Your task to perform on an android device: check storage Image 0: 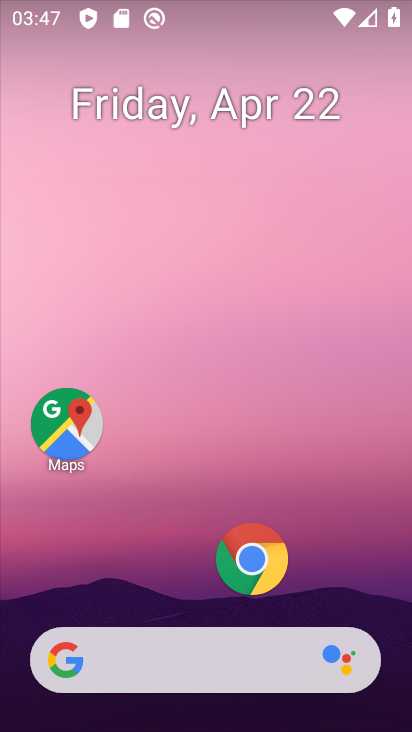
Step 0: drag from (162, 488) to (157, 117)
Your task to perform on an android device: check storage Image 1: 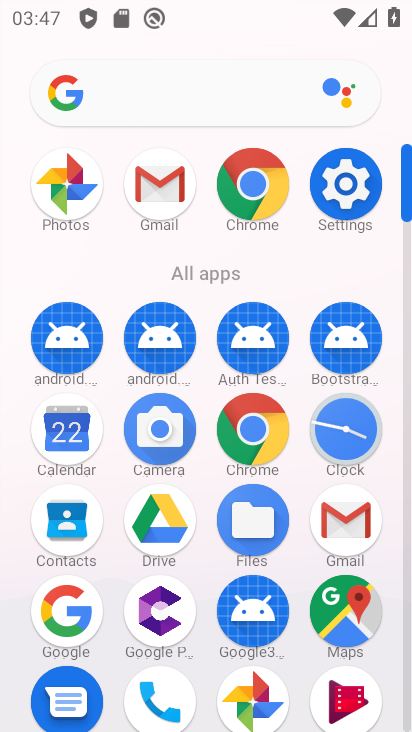
Step 1: click (341, 186)
Your task to perform on an android device: check storage Image 2: 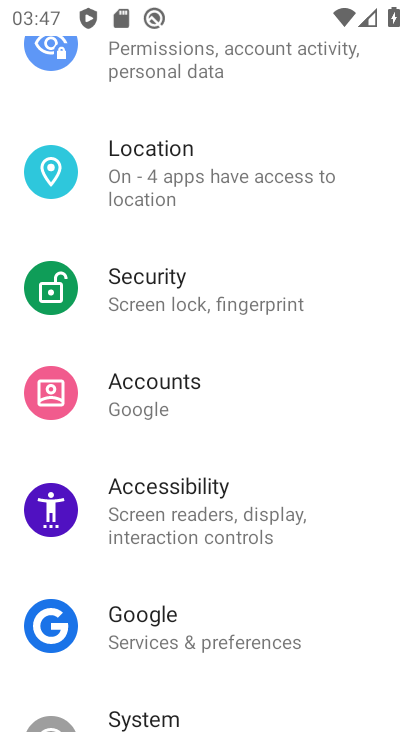
Step 2: drag from (219, 227) to (201, 551)
Your task to perform on an android device: check storage Image 3: 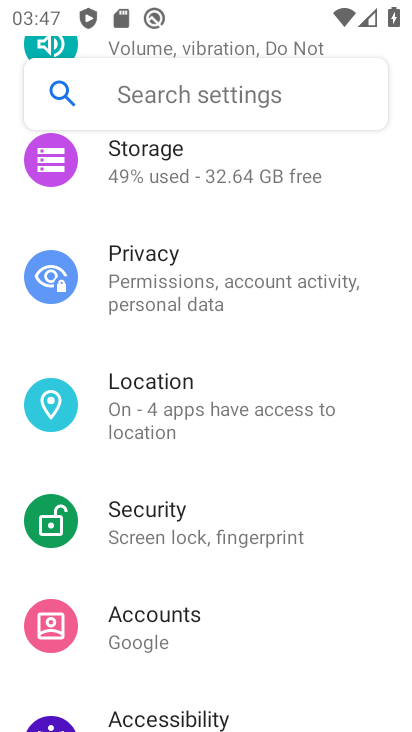
Step 3: click (191, 180)
Your task to perform on an android device: check storage Image 4: 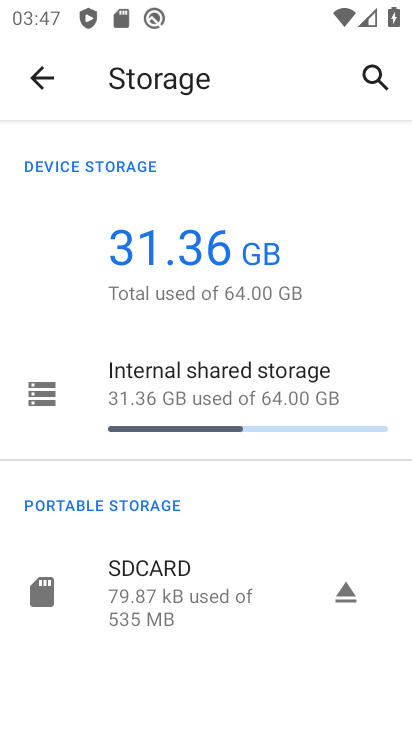
Step 4: click (217, 387)
Your task to perform on an android device: check storage Image 5: 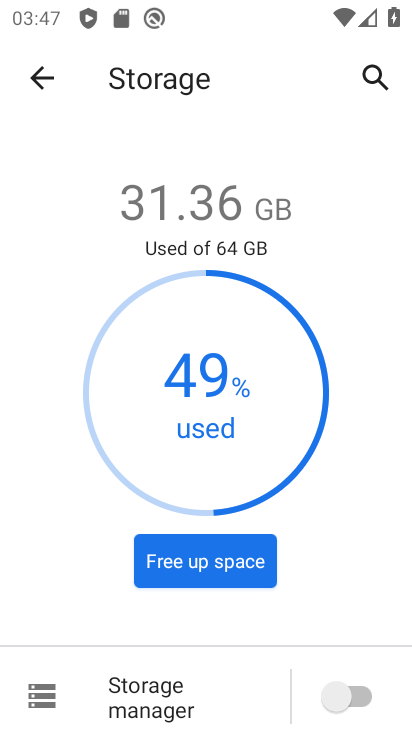
Step 5: task complete